Your task to perform on an android device: turn off notifications settings in the gmail app Image 0: 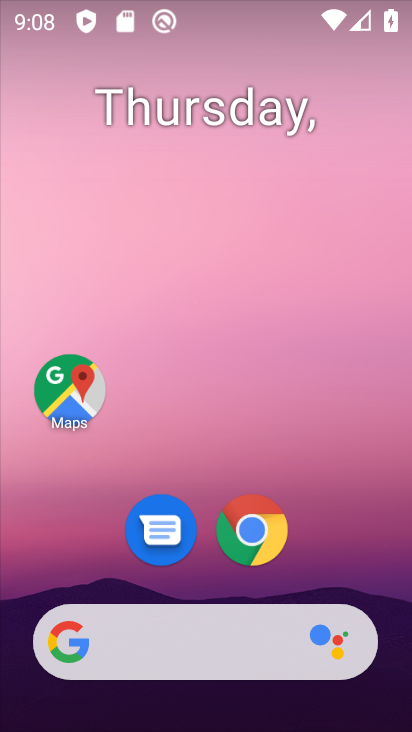
Step 0: drag from (329, 520) to (247, 13)
Your task to perform on an android device: turn off notifications settings in the gmail app Image 1: 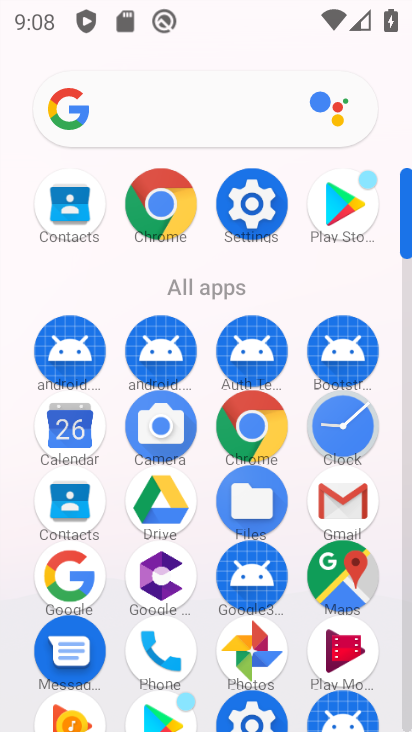
Step 1: drag from (24, 501) to (22, 198)
Your task to perform on an android device: turn off notifications settings in the gmail app Image 2: 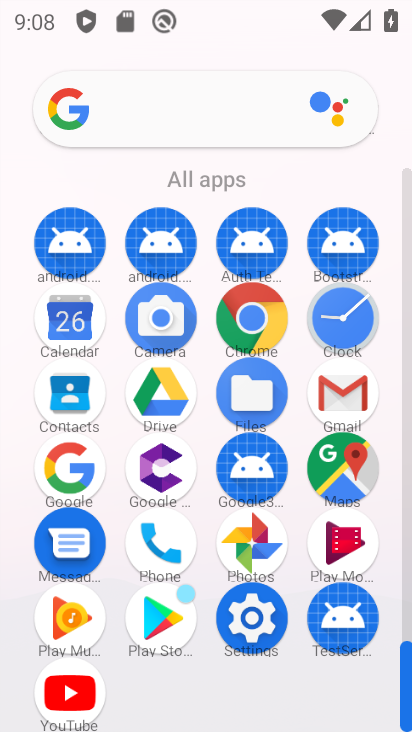
Step 2: click (341, 386)
Your task to perform on an android device: turn off notifications settings in the gmail app Image 3: 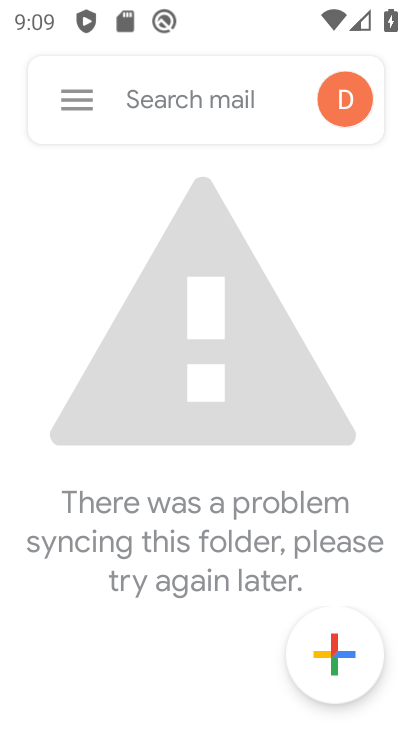
Step 3: click (61, 89)
Your task to perform on an android device: turn off notifications settings in the gmail app Image 4: 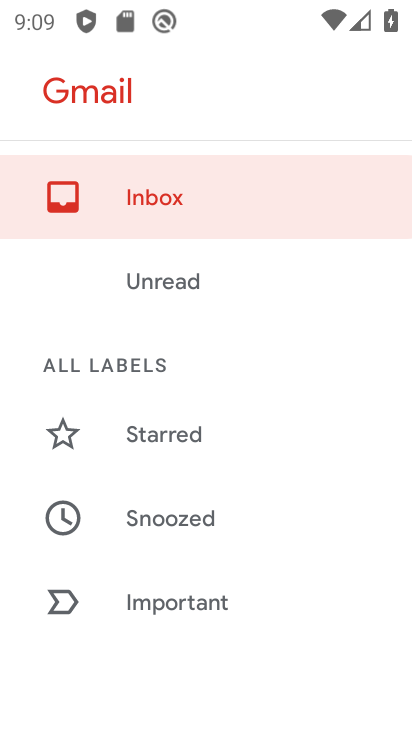
Step 4: drag from (214, 580) to (253, 141)
Your task to perform on an android device: turn off notifications settings in the gmail app Image 5: 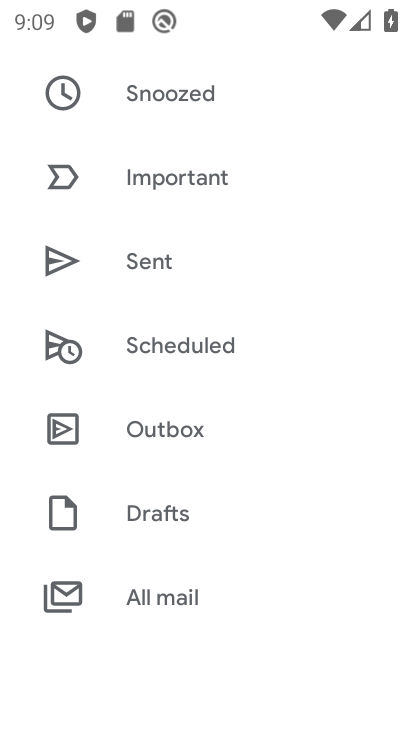
Step 5: drag from (221, 629) to (269, 172)
Your task to perform on an android device: turn off notifications settings in the gmail app Image 6: 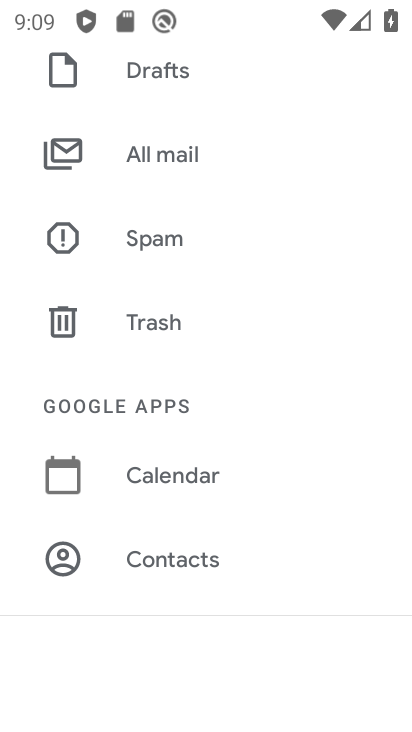
Step 6: drag from (227, 561) to (253, 187)
Your task to perform on an android device: turn off notifications settings in the gmail app Image 7: 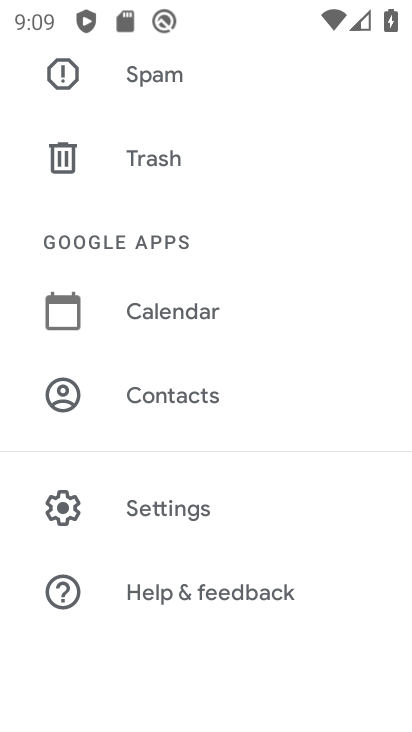
Step 7: click (196, 505)
Your task to perform on an android device: turn off notifications settings in the gmail app Image 8: 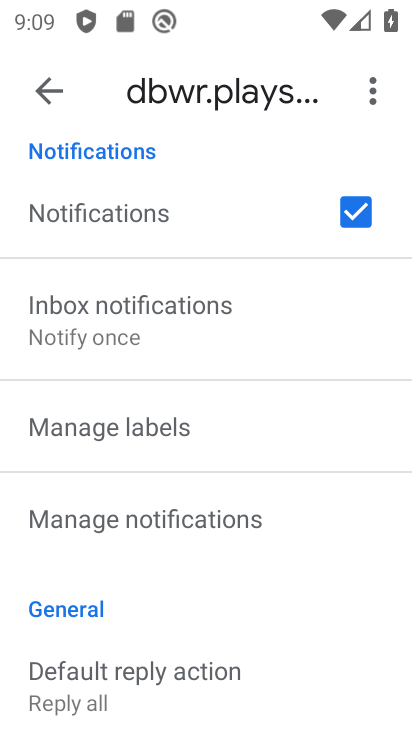
Step 8: click (177, 515)
Your task to perform on an android device: turn off notifications settings in the gmail app Image 9: 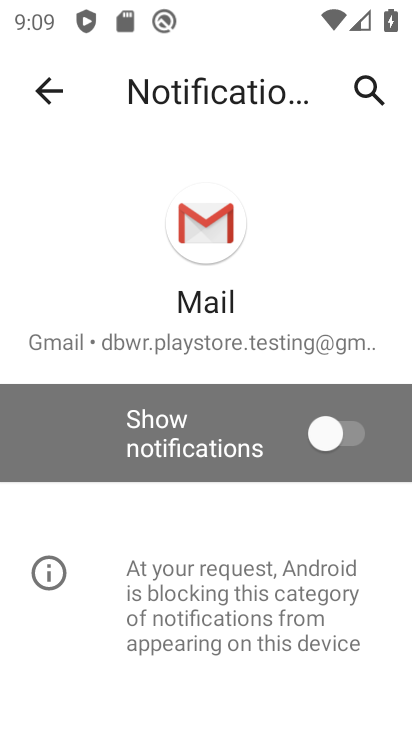
Step 9: task complete